Your task to perform on an android device: turn off javascript in the chrome app Image 0: 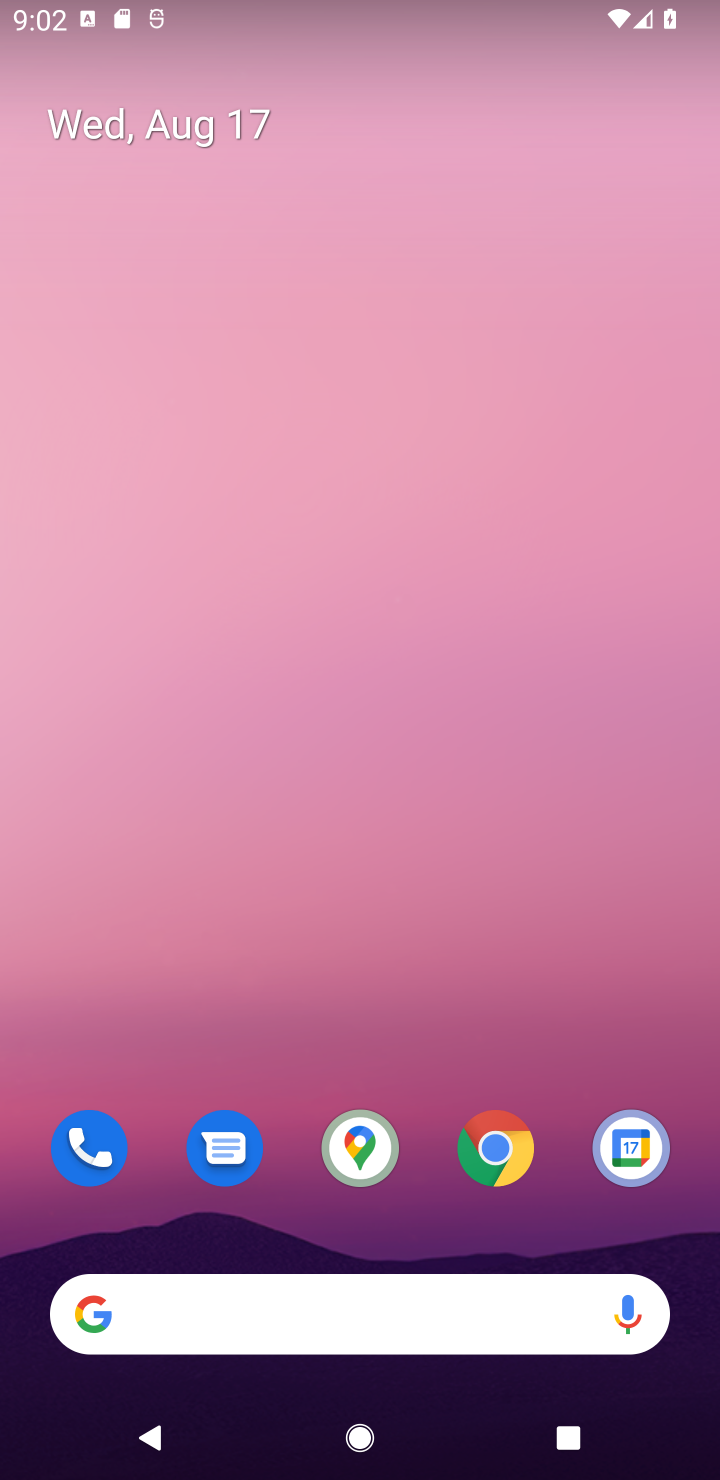
Step 0: click (498, 1160)
Your task to perform on an android device: turn off javascript in the chrome app Image 1: 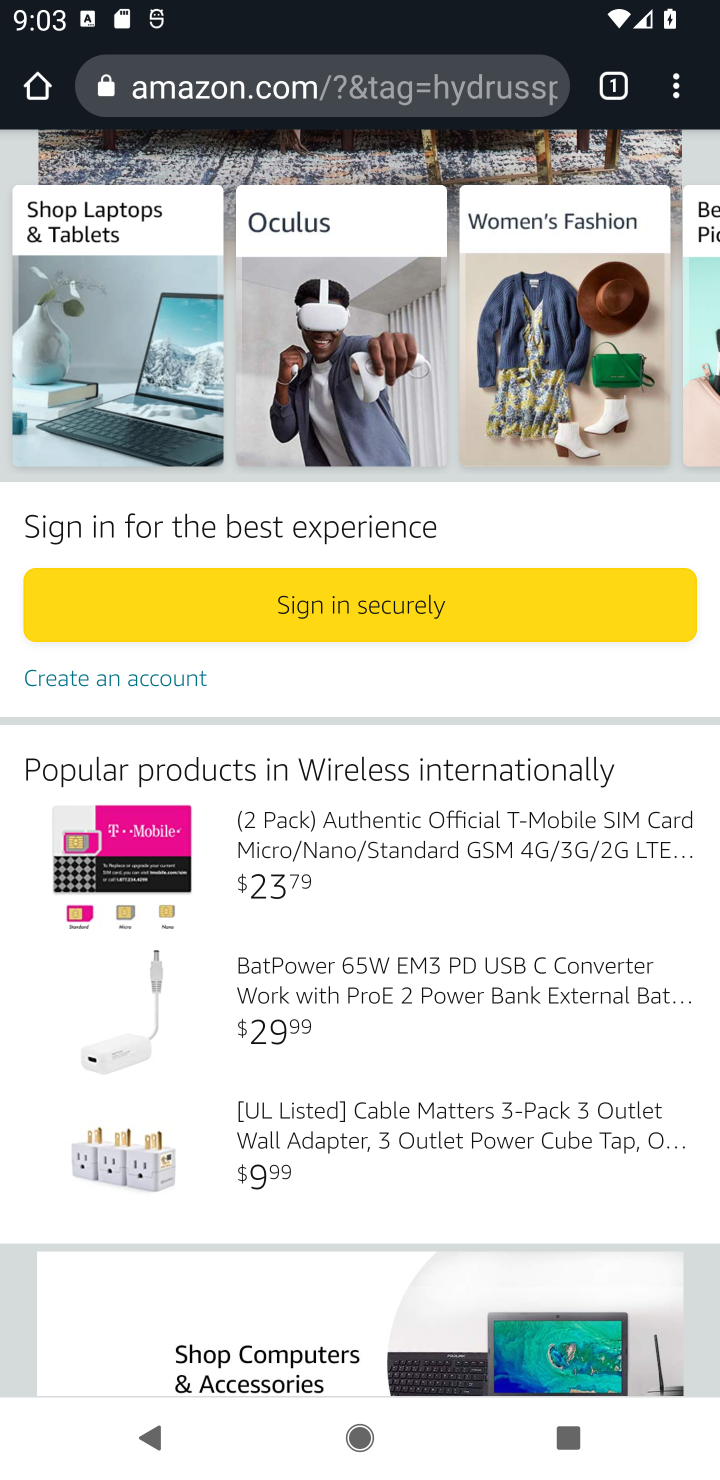
Step 1: click (673, 102)
Your task to perform on an android device: turn off javascript in the chrome app Image 2: 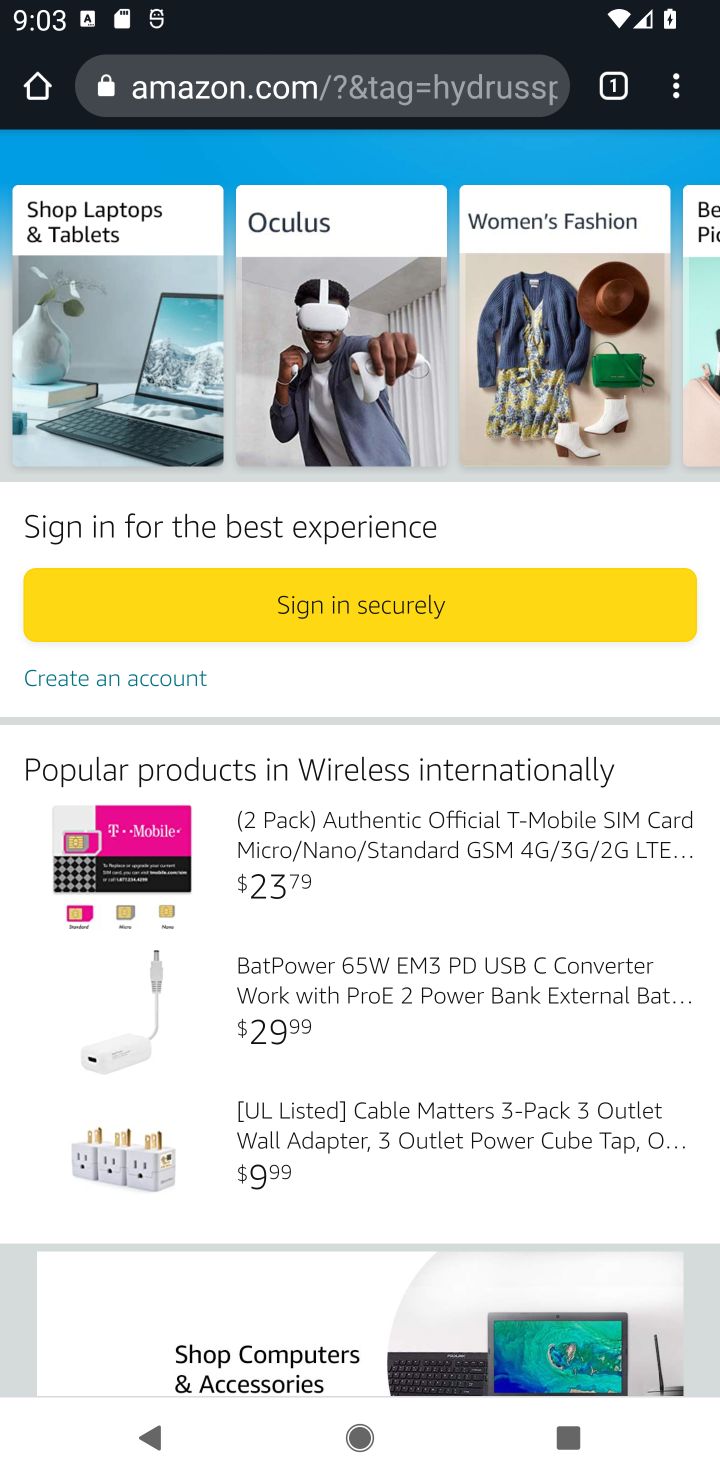
Step 2: click (672, 109)
Your task to perform on an android device: turn off javascript in the chrome app Image 3: 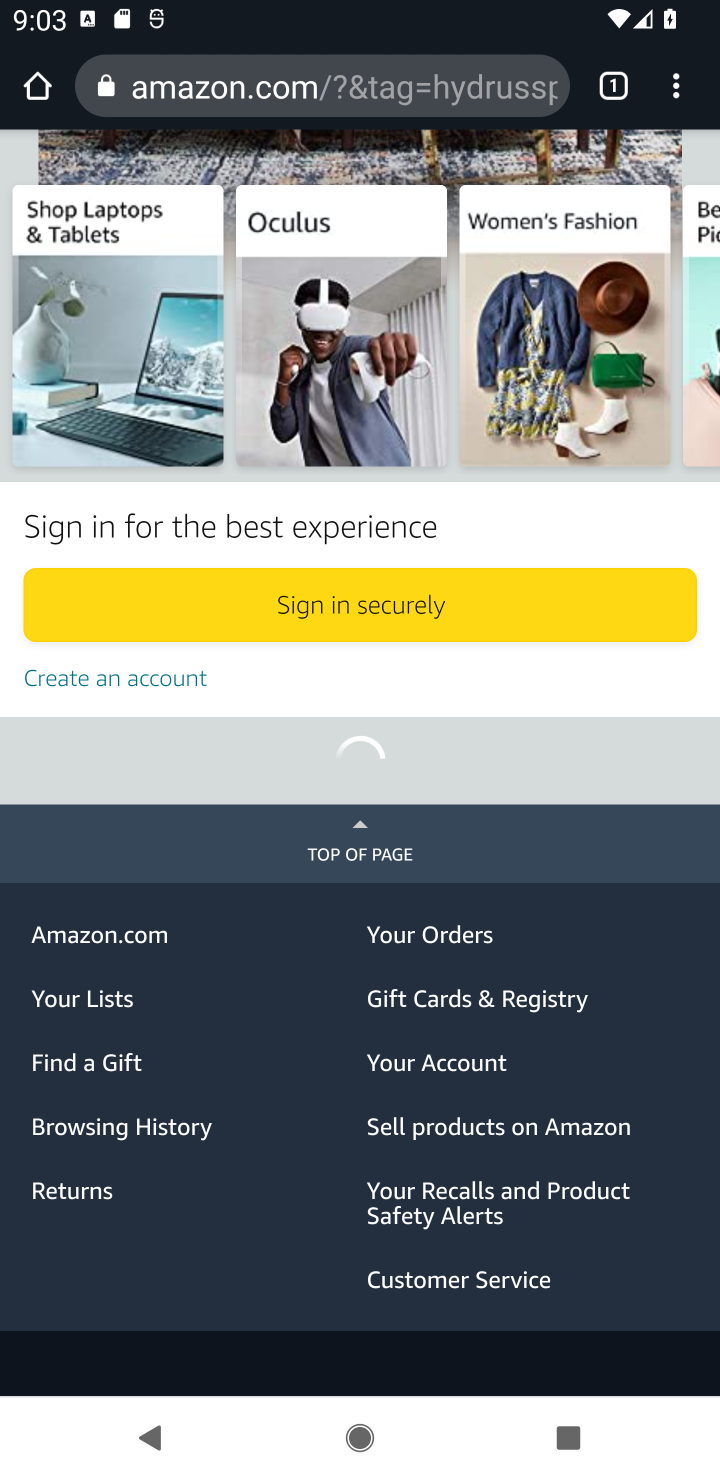
Step 3: click (671, 102)
Your task to perform on an android device: turn off javascript in the chrome app Image 4: 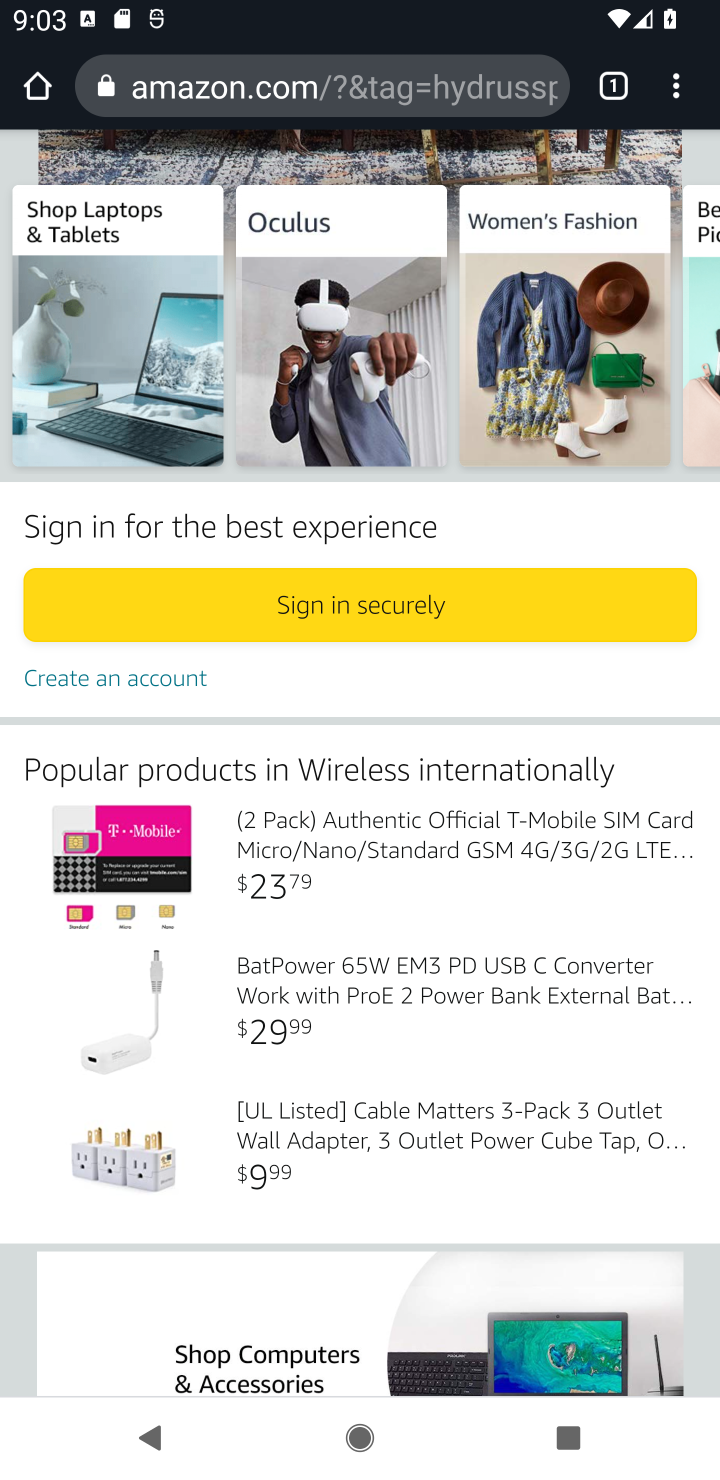
Step 4: click (669, 107)
Your task to perform on an android device: turn off javascript in the chrome app Image 5: 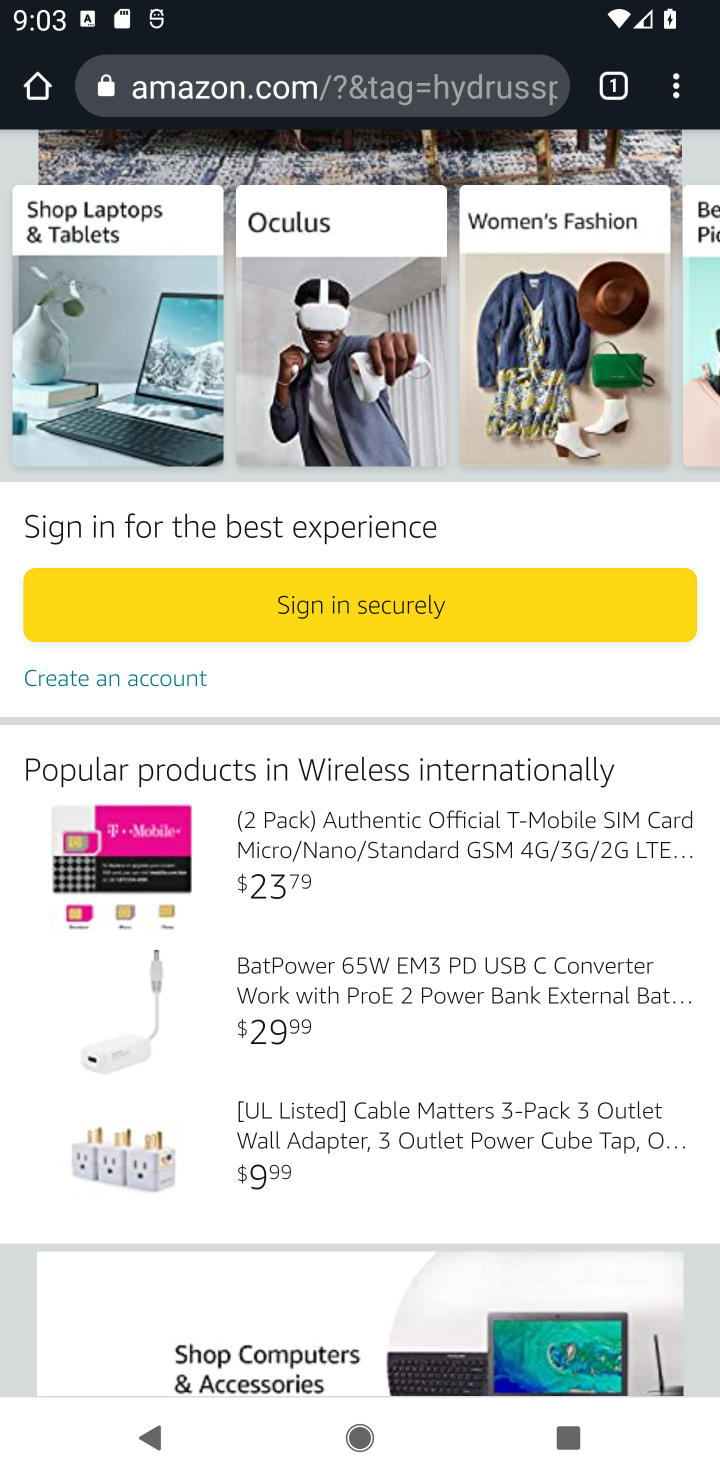
Step 5: click (670, 102)
Your task to perform on an android device: turn off javascript in the chrome app Image 6: 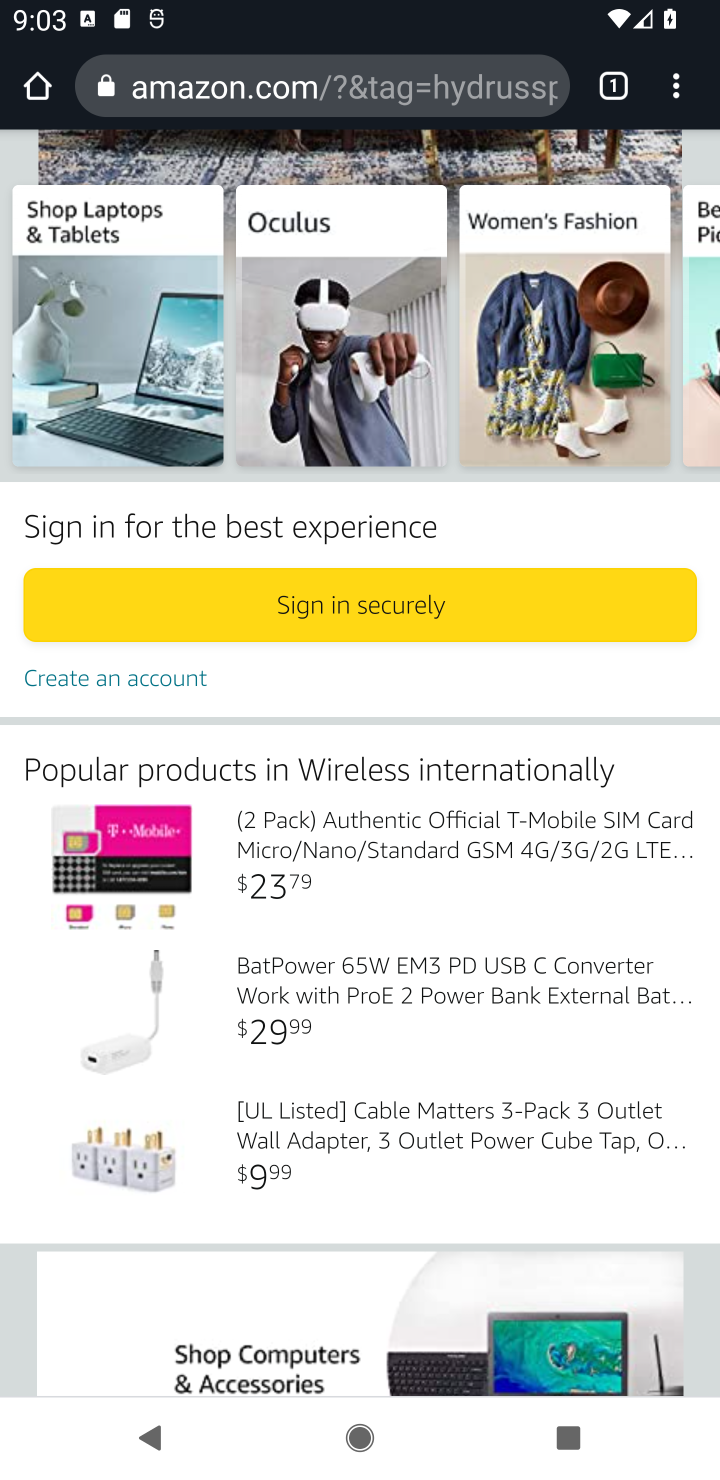
Step 6: click (687, 102)
Your task to perform on an android device: turn off javascript in the chrome app Image 7: 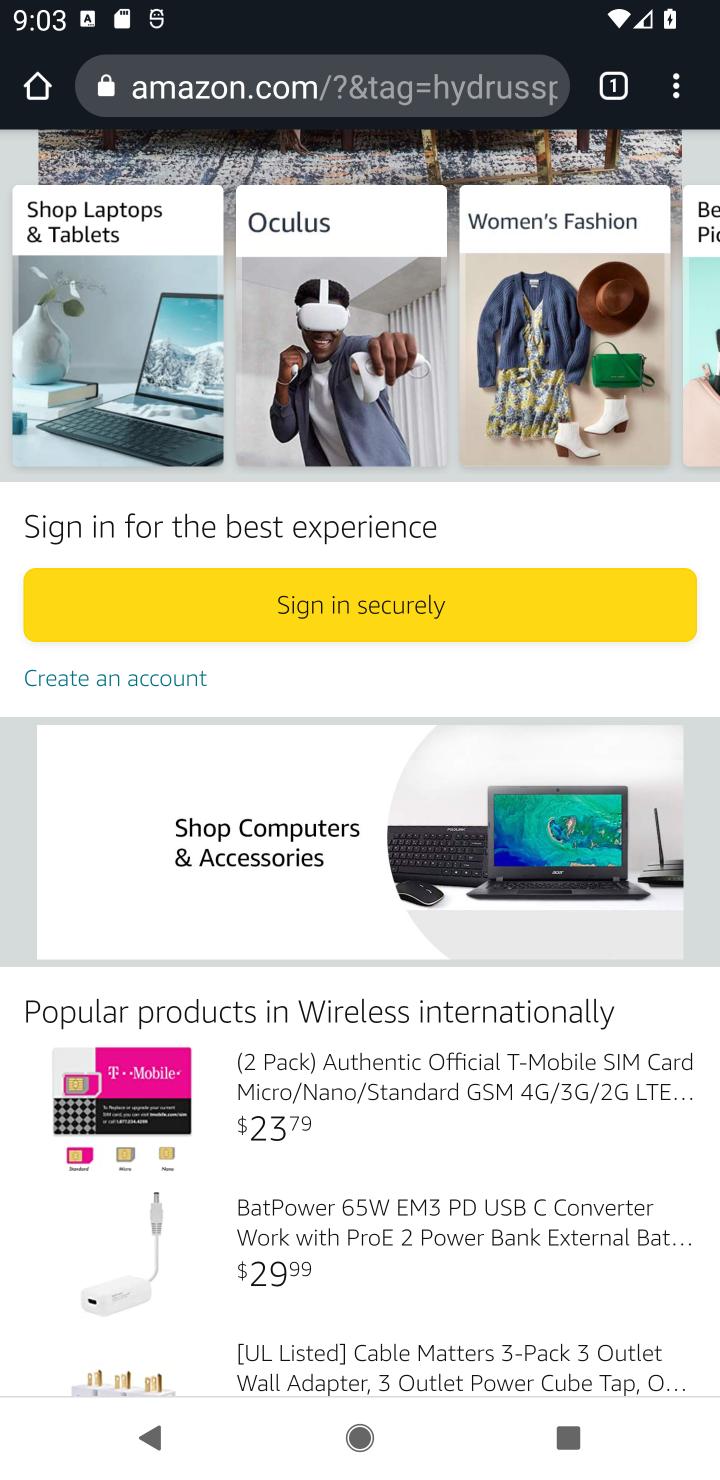
Step 7: click (674, 102)
Your task to perform on an android device: turn off javascript in the chrome app Image 8: 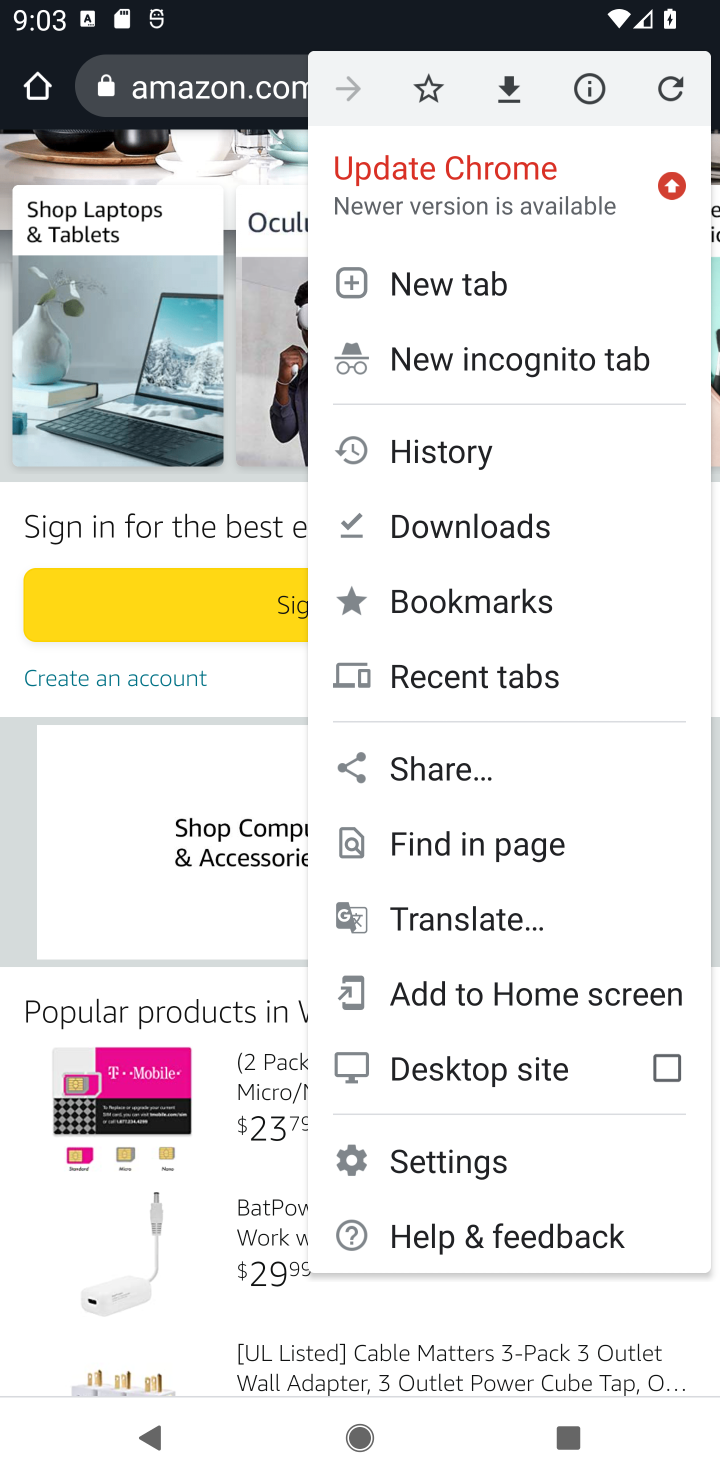
Step 8: click (442, 1162)
Your task to perform on an android device: turn off javascript in the chrome app Image 9: 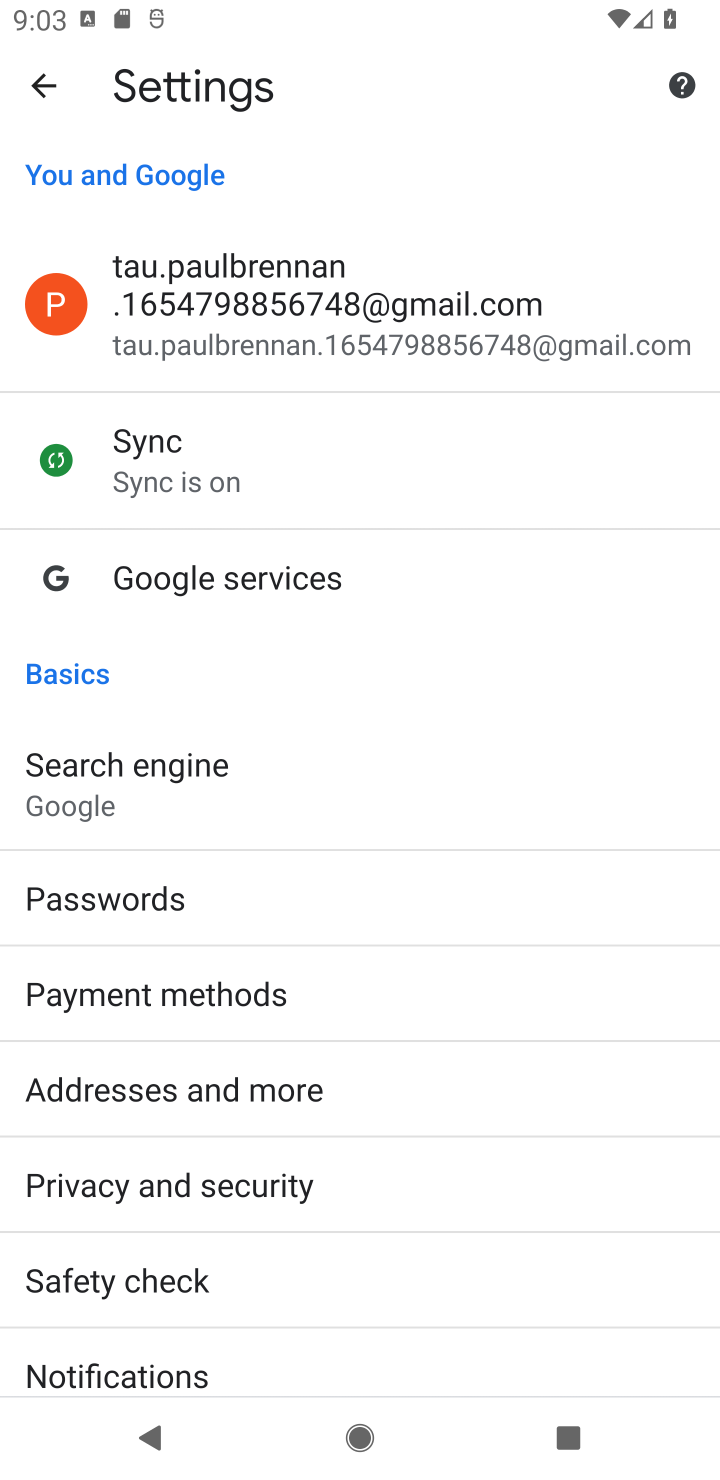
Step 9: drag from (461, 1263) to (554, 375)
Your task to perform on an android device: turn off javascript in the chrome app Image 10: 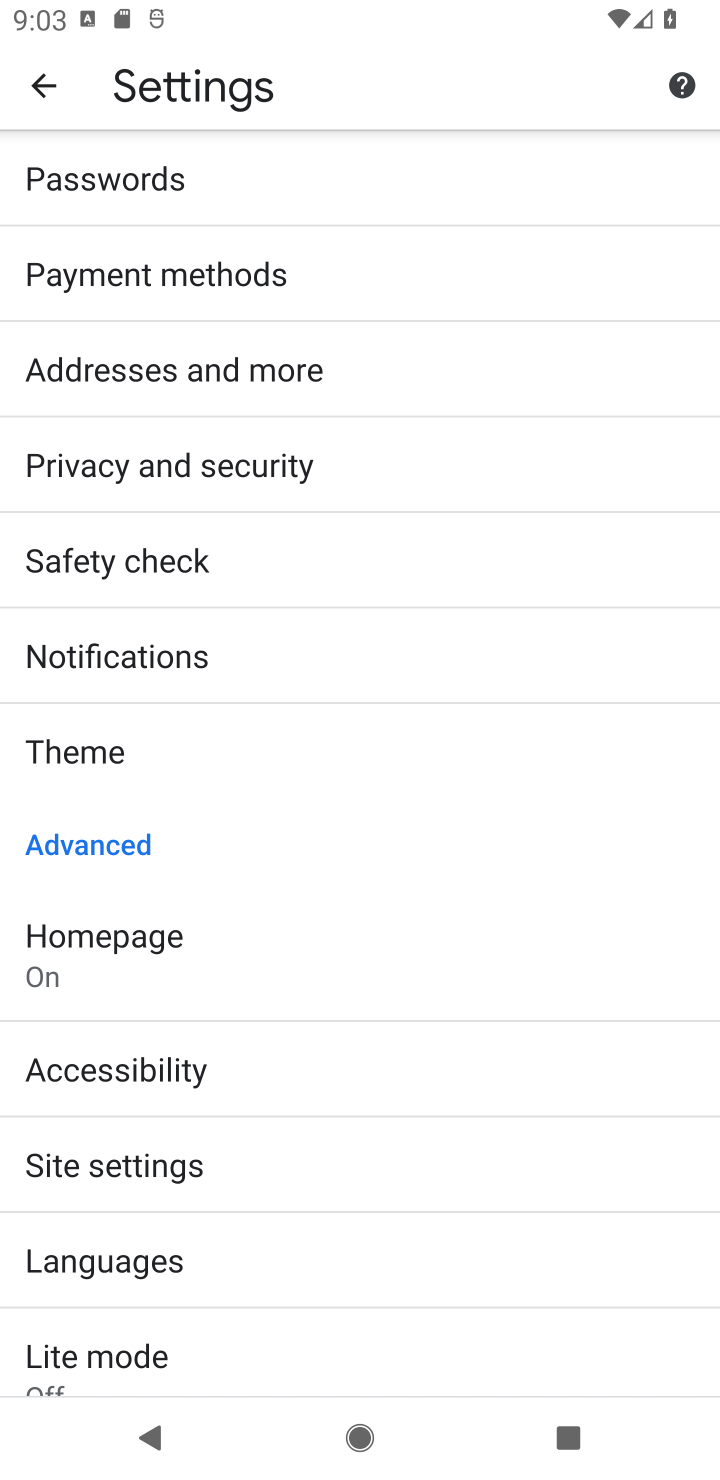
Step 10: click (136, 1177)
Your task to perform on an android device: turn off javascript in the chrome app Image 11: 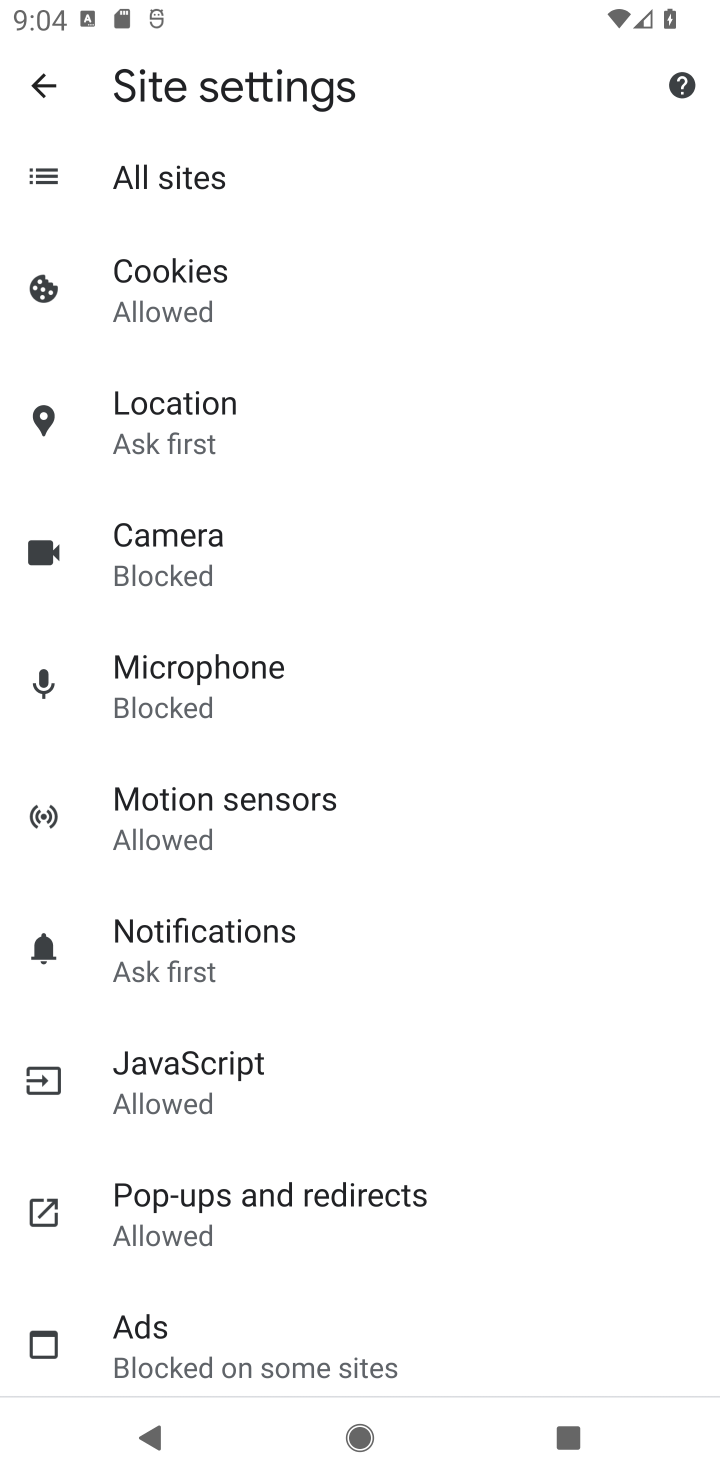
Step 11: click (144, 1075)
Your task to perform on an android device: turn off javascript in the chrome app Image 12: 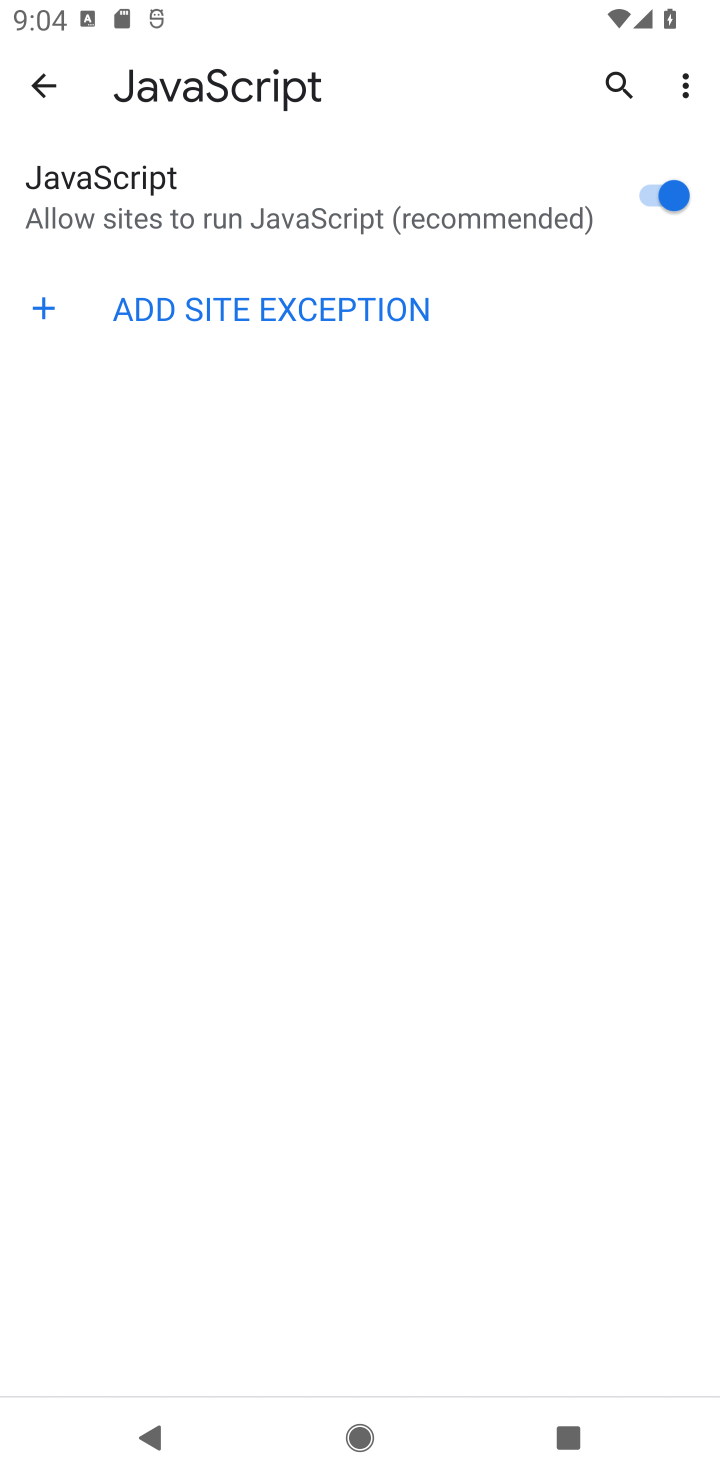
Step 12: click (651, 198)
Your task to perform on an android device: turn off javascript in the chrome app Image 13: 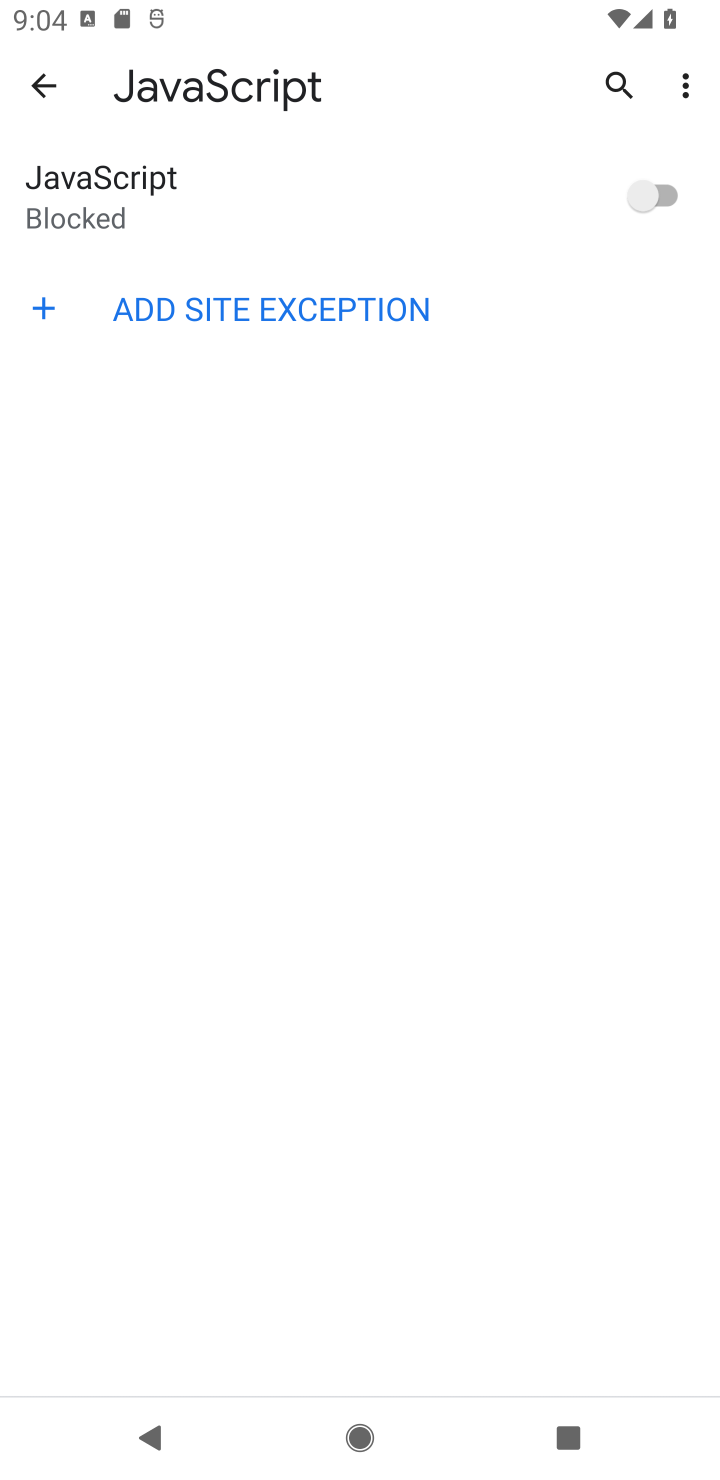
Step 13: task complete